Your task to perform on an android device: Go to Google Image 0: 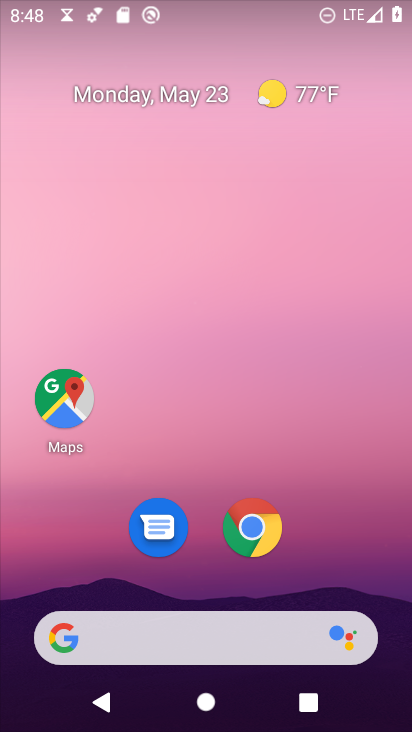
Step 0: drag from (266, 638) to (237, 124)
Your task to perform on an android device: Go to Google Image 1: 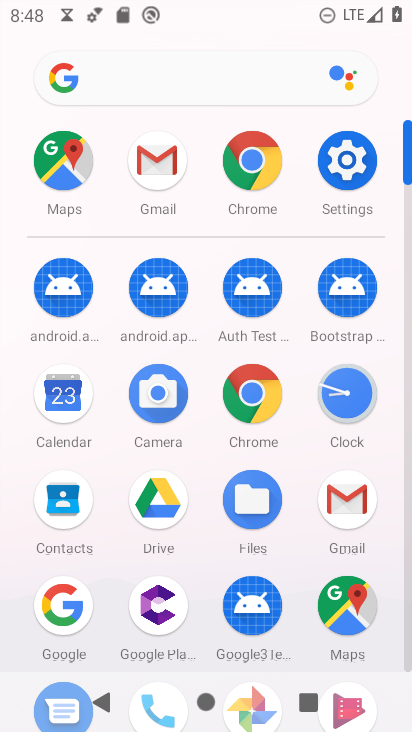
Step 1: click (59, 70)
Your task to perform on an android device: Go to Google Image 2: 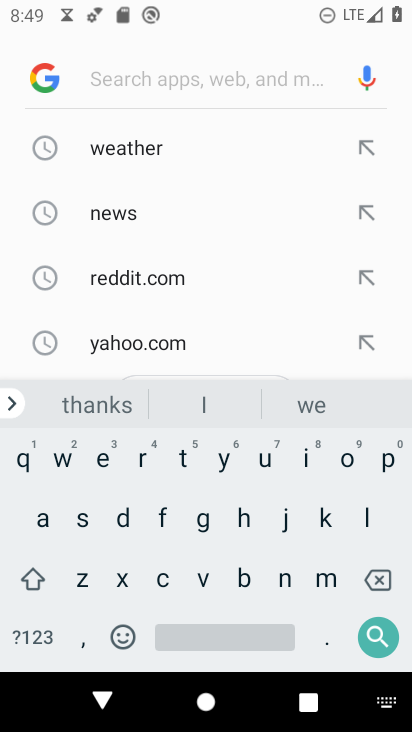
Step 2: click (59, 70)
Your task to perform on an android device: Go to Google Image 3: 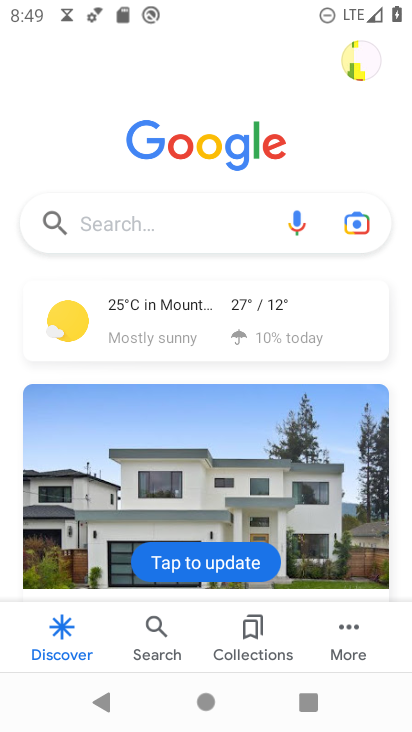
Step 3: task complete